Your task to perform on an android device: What's on my calendar tomorrow? Image 0: 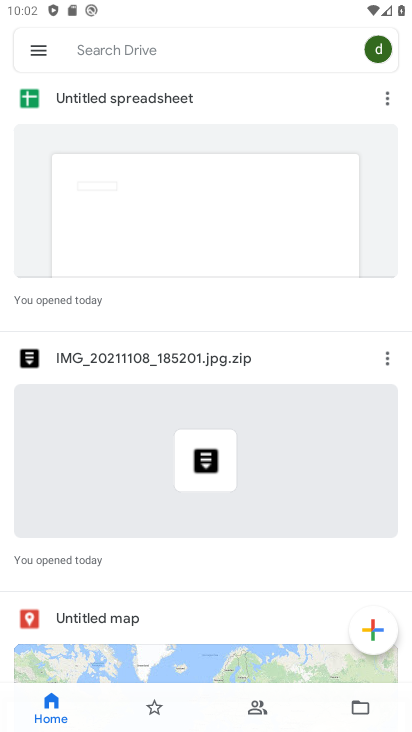
Step 0: press home button
Your task to perform on an android device: What's on my calendar tomorrow? Image 1: 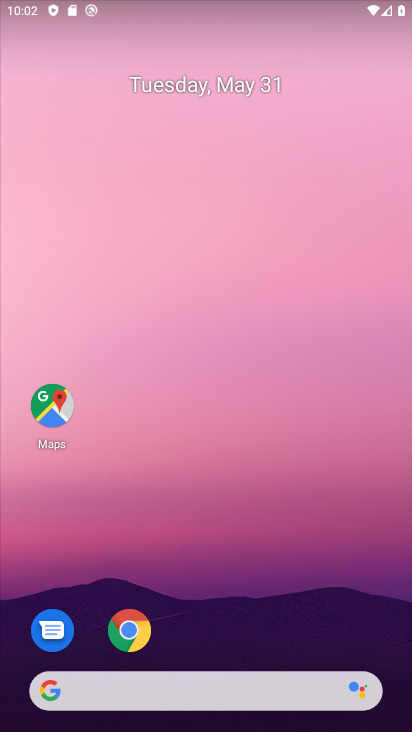
Step 1: drag from (346, 590) to (337, 195)
Your task to perform on an android device: What's on my calendar tomorrow? Image 2: 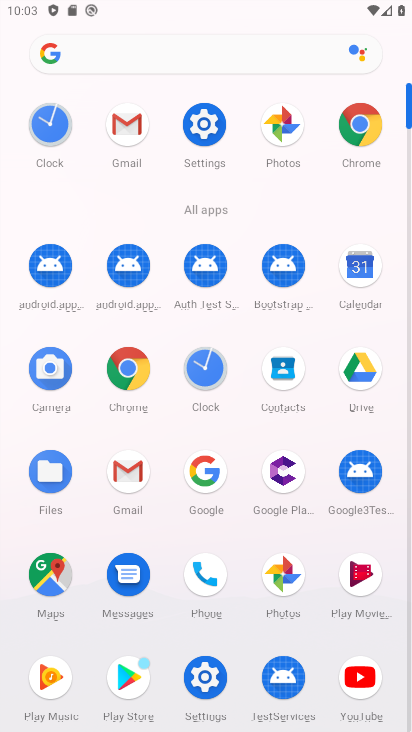
Step 2: click (362, 268)
Your task to perform on an android device: What's on my calendar tomorrow? Image 3: 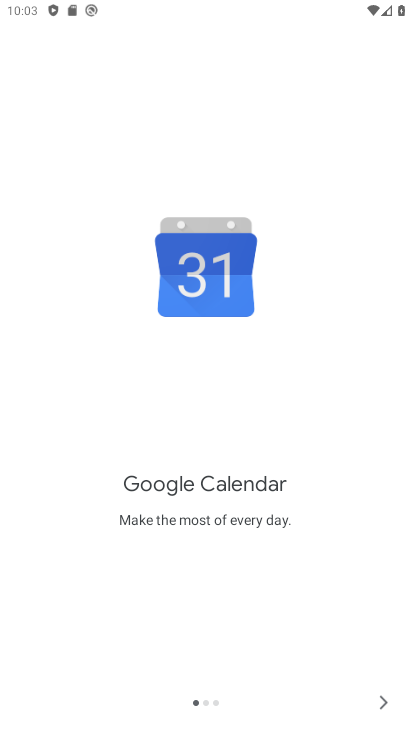
Step 3: click (372, 704)
Your task to perform on an android device: What's on my calendar tomorrow? Image 4: 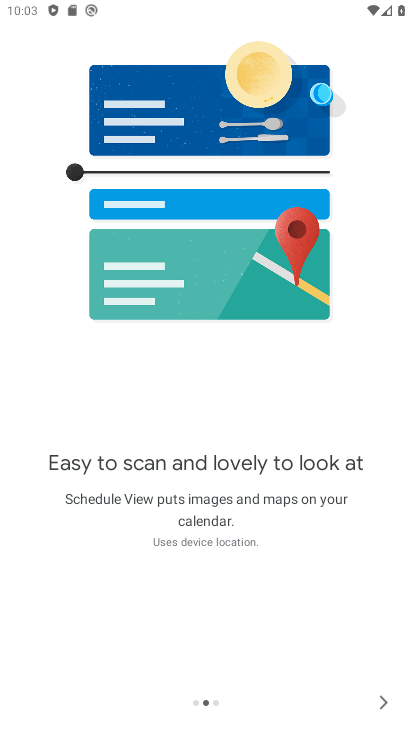
Step 4: click (373, 704)
Your task to perform on an android device: What's on my calendar tomorrow? Image 5: 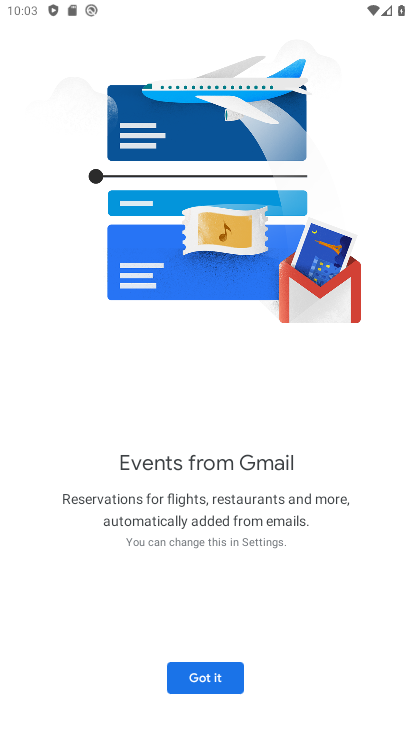
Step 5: click (213, 679)
Your task to perform on an android device: What's on my calendar tomorrow? Image 6: 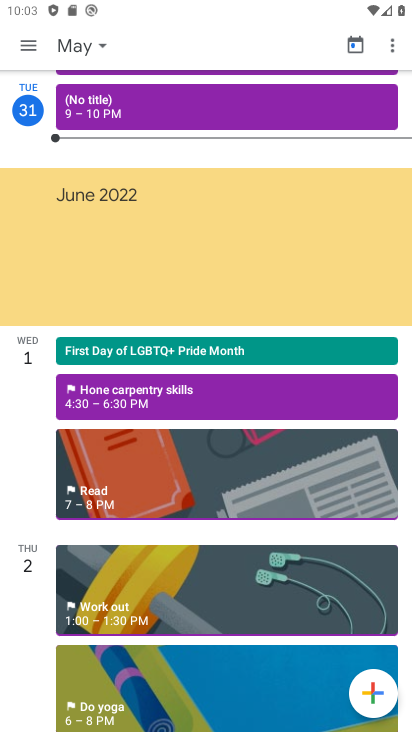
Step 6: task complete